Your task to perform on an android device: check google app version Image 0: 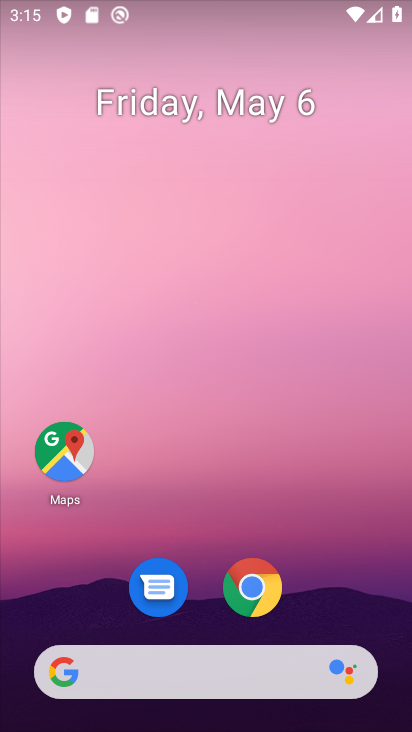
Step 0: drag from (330, 598) to (368, 129)
Your task to perform on an android device: check google app version Image 1: 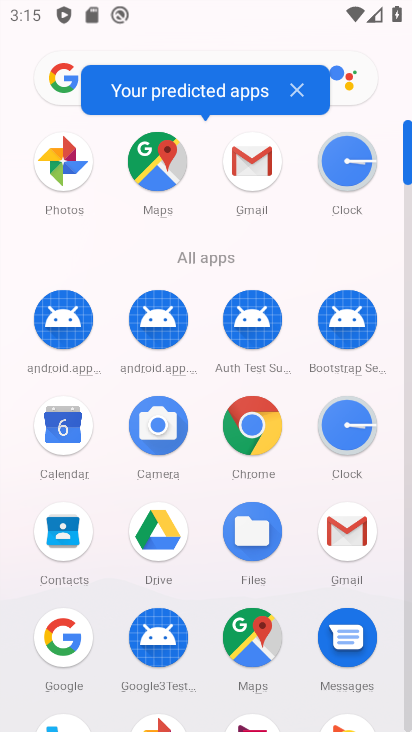
Step 1: click (66, 644)
Your task to perform on an android device: check google app version Image 2: 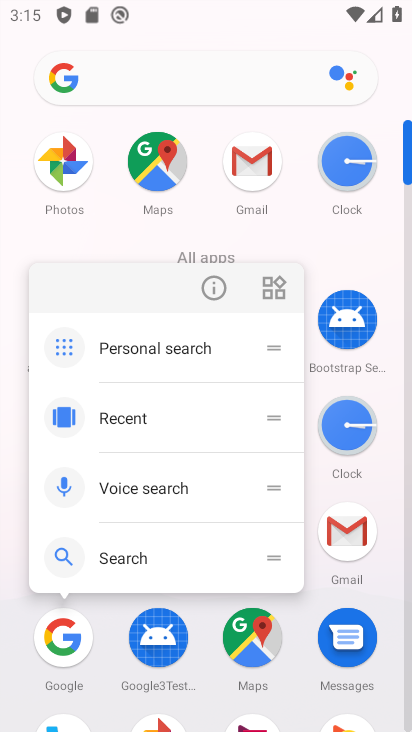
Step 2: click (63, 639)
Your task to perform on an android device: check google app version Image 3: 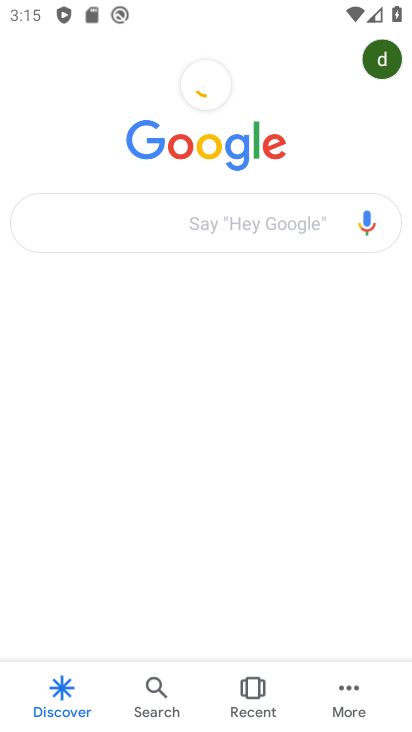
Step 3: click (362, 713)
Your task to perform on an android device: check google app version Image 4: 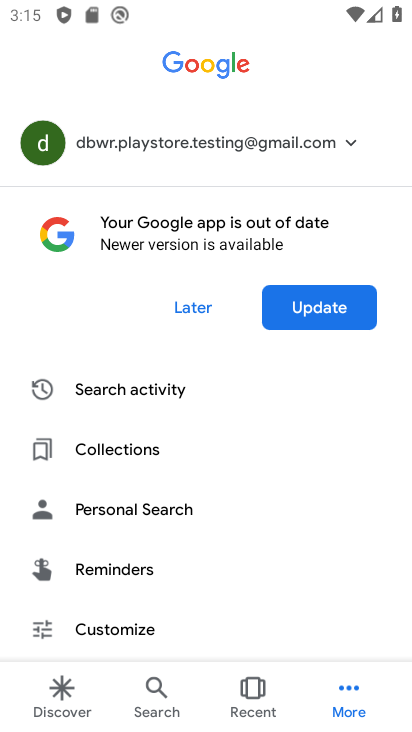
Step 4: drag from (246, 595) to (277, 95)
Your task to perform on an android device: check google app version Image 5: 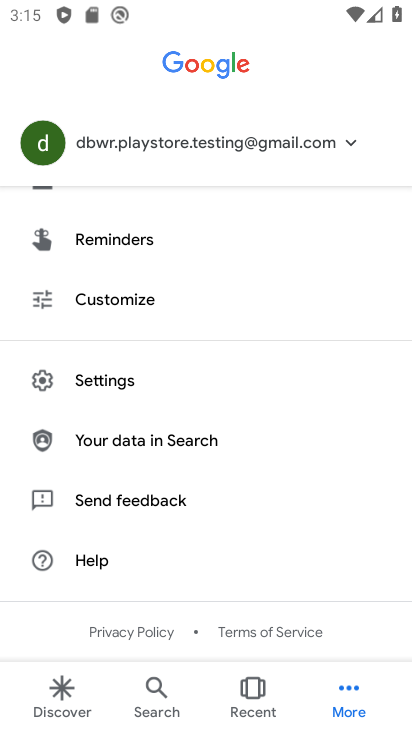
Step 5: click (121, 374)
Your task to perform on an android device: check google app version Image 6: 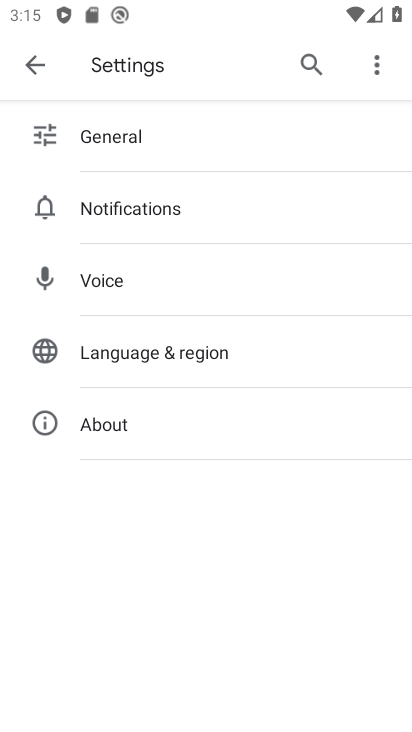
Step 6: click (90, 430)
Your task to perform on an android device: check google app version Image 7: 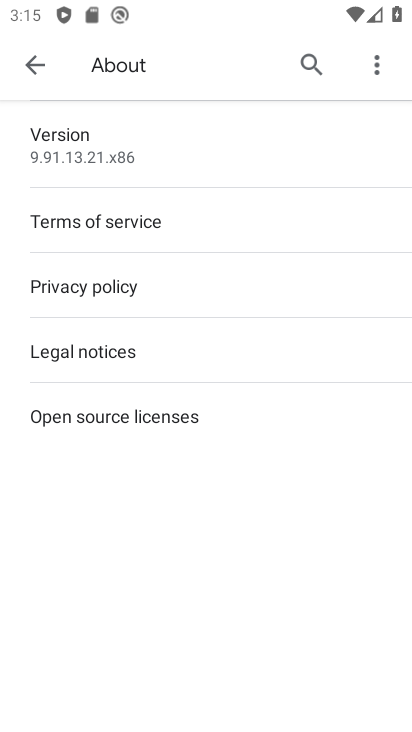
Step 7: click (76, 156)
Your task to perform on an android device: check google app version Image 8: 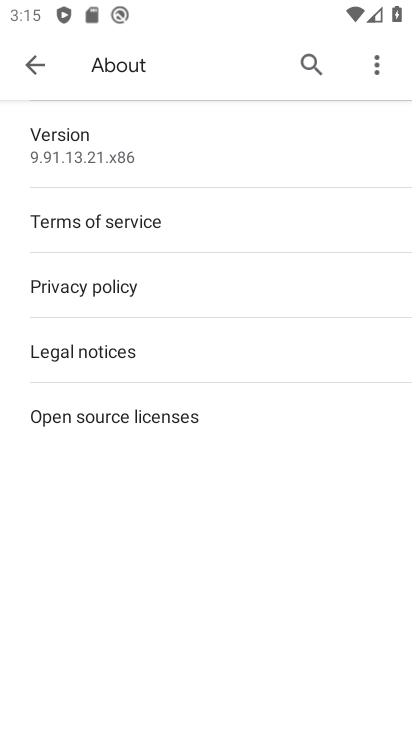
Step 8: click (236, 132)
Your task to perform on an android device: check google app version Image 9: 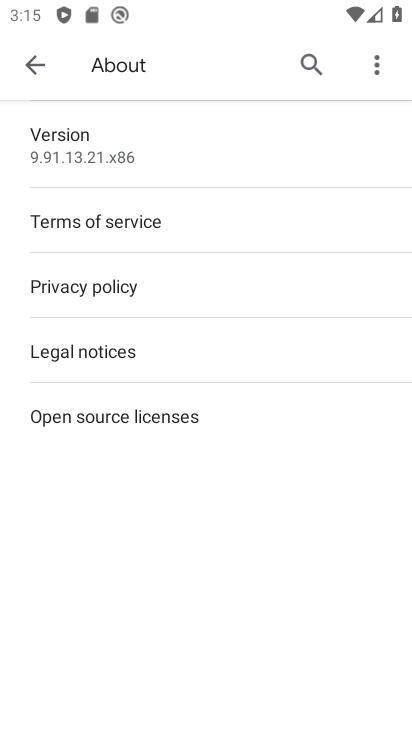
Step 9: task complete